Your task to perform on an android device: What's the weather going to be tomorrow? Image 0: 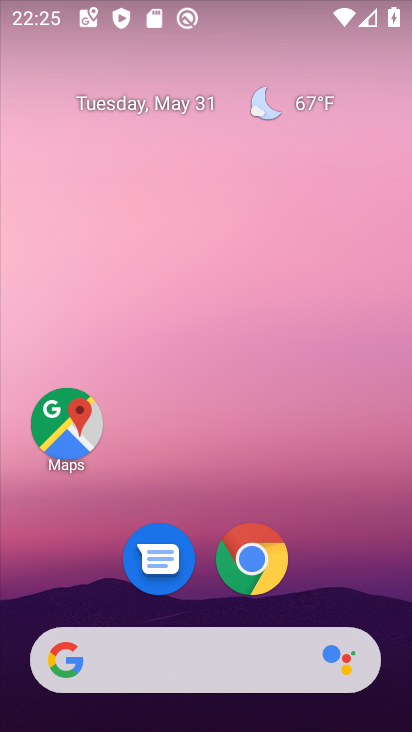
Step 0: drag from (319, 549) to (332, 135)
Your task to perform on an android device: What's the weather going to be tomorrow? Image 1: 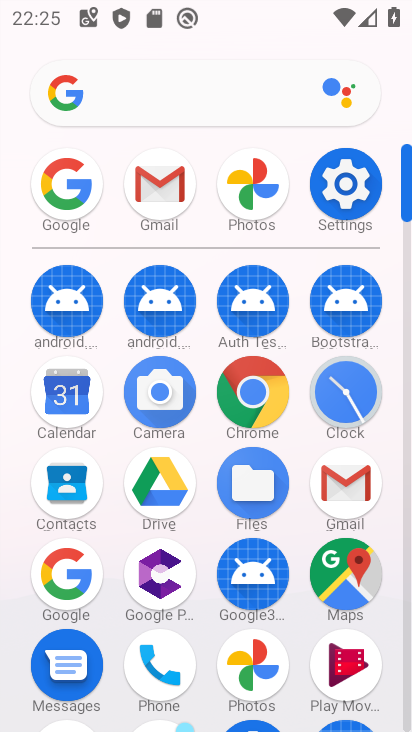
Step 1: click (50, 580)
Your task to perform on an android device: What's the weather going to be tomorrow? Image 2: 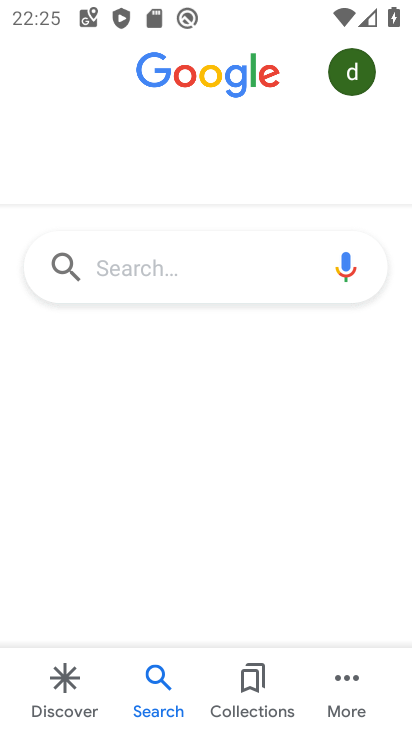
Step 2: click (176, 274)
Your task to perform on an android device: What's the weather going to be tomorrow? Image 3: 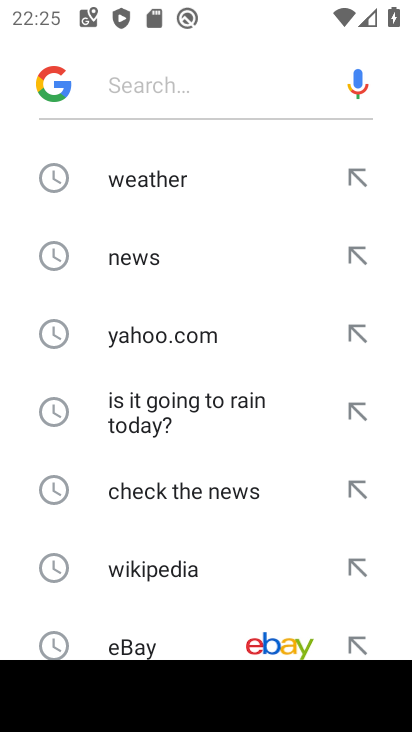
Step 3: drag from (218, 511) to (220, 163)
Your task to perform on an android device: What's the weather going to be tomorrow? Image 4: 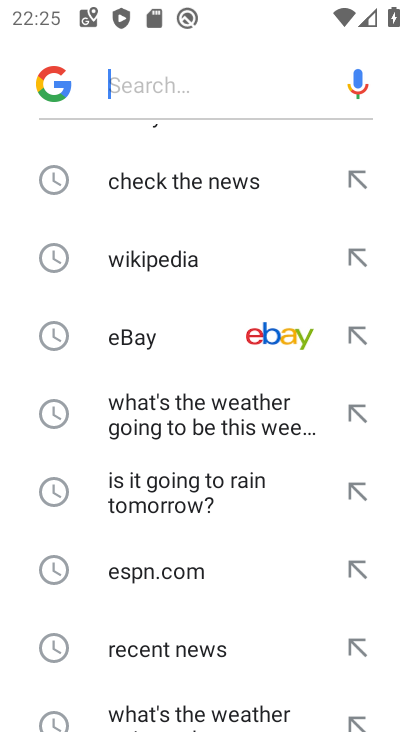
Step 4: drag from (237, 590) to (227, 448)
Your task to perform on an android device: What's the weather going to be tomorrow? Image 5: 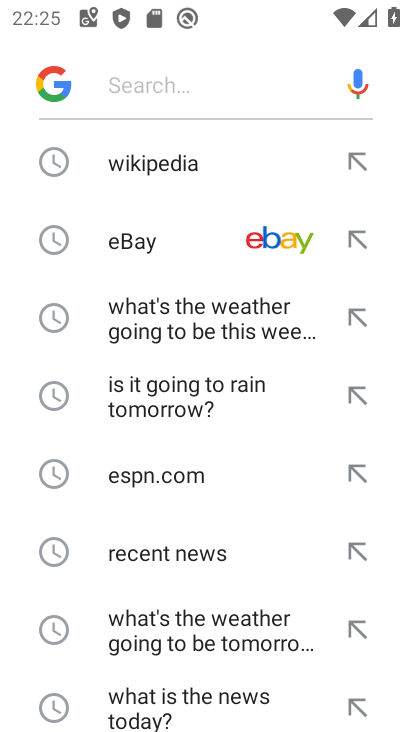
Step 5: click (215, 626)
Your task to perform on an android device: What's the weather going to be tomorrow? Image 6: 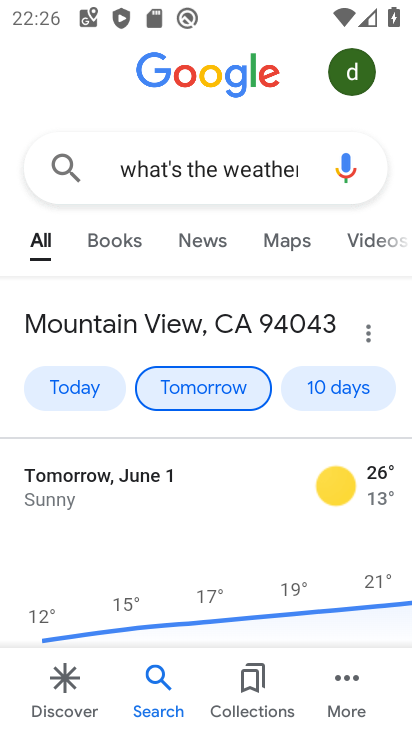
Step 6: task complete